Your task to perform on an android device: Search for vegetarian restaurants on Maps Image 0: 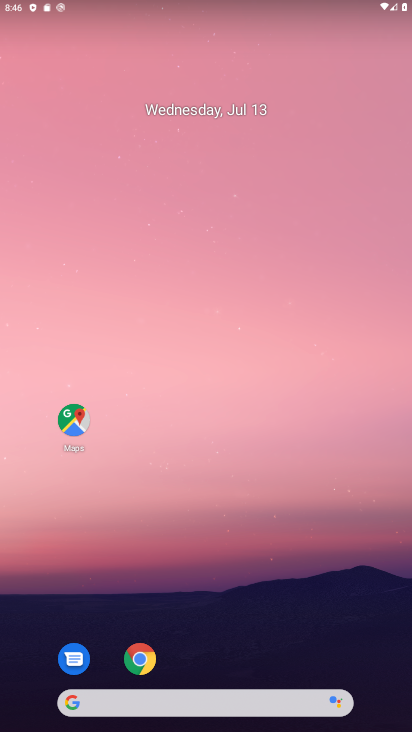
Step 0: drag from (204, 662) to (193, 203)
Your task to perform on an android device: Search for vegetarian restaurants on Maps Image 1: 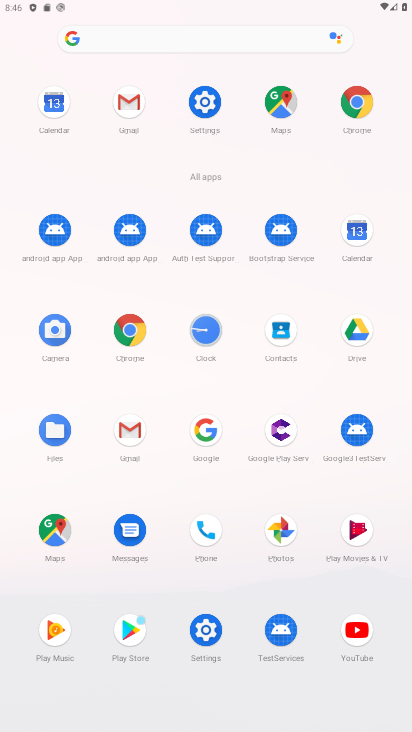
Step 1: click (59, 528)
Your task to perform on an android device: Search for vegetarian restaurants on Maps Image 2: 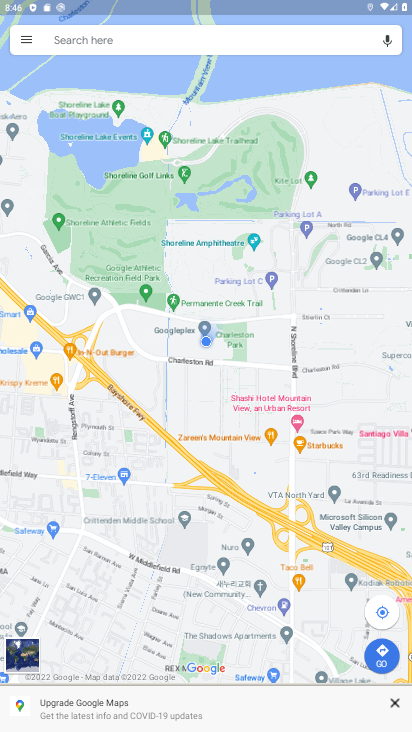
Step 2: click (209, 36)
Your task to perform on an android device: Search for vegetarian restaurants on Maps Image 3: 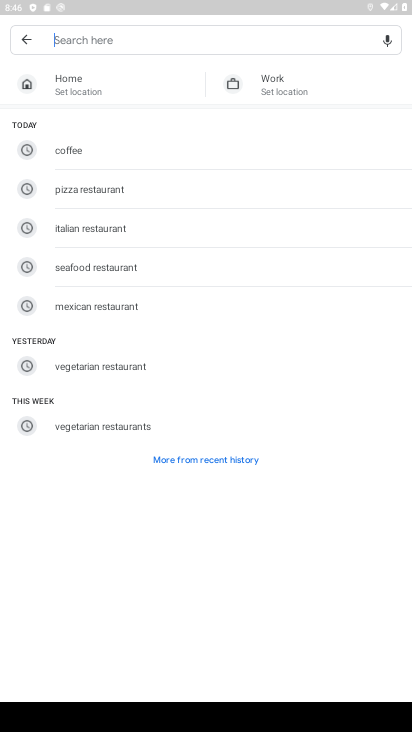
Step 3: click (99, 372)
Your task to perform on an android device: Search for vegetarian restaurants on Maps Image 4: 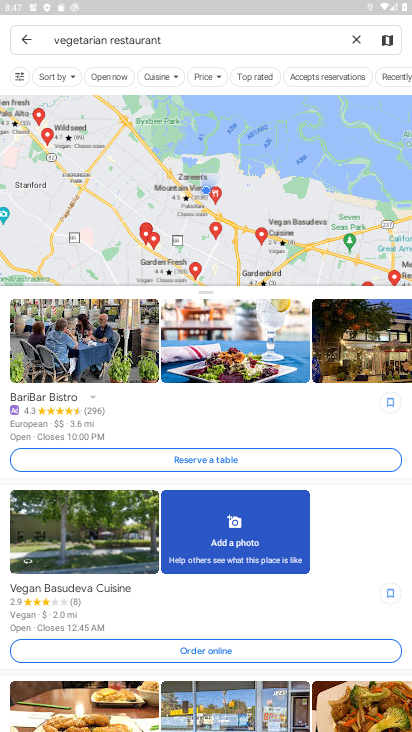
Step 4: task complete